Your task to perform on an android device: Open the phone app and click the voicemail tab. Image 0: 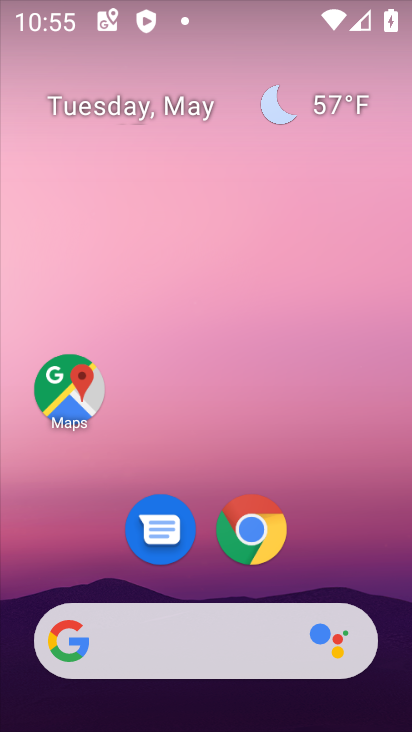
Step 0: drag from (207, 562) to (209, 83)
Your task to perform on an android device: Open the phone app and click the voicemail tab. Image 1: 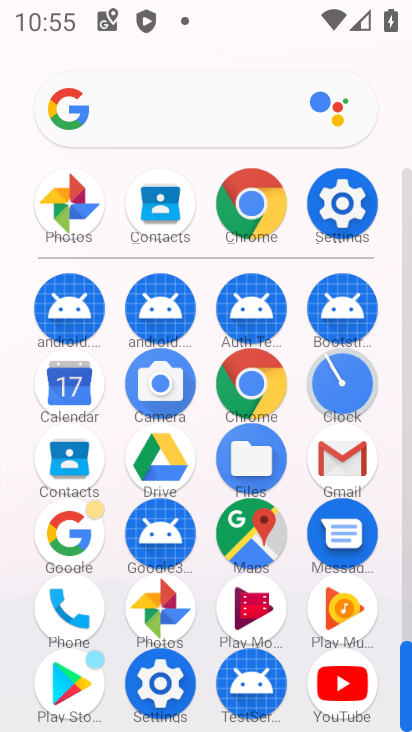
Step 1: click (70, 607)
Your task to perform on an android device: Open the phone app and click the voicemail tab. Image 2: 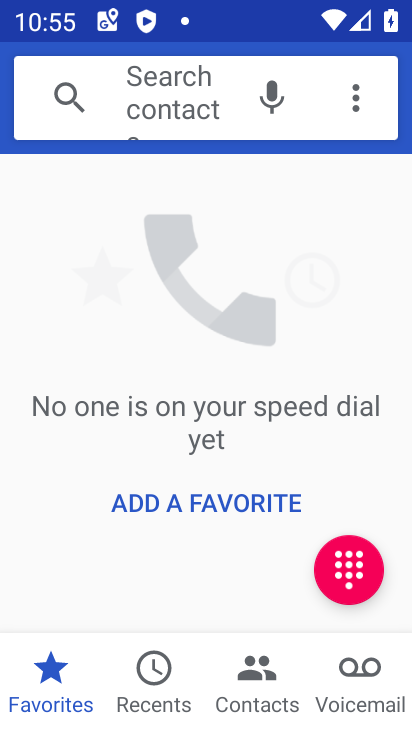
Step 2: click (359, 661)
Your task to perform on an android device: Open the phone app and click the voicemail tab. Image 3: 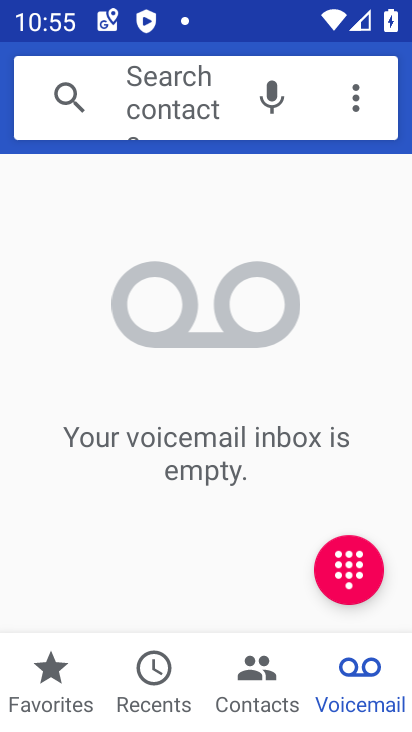
Step 3: task complete